Your task to perform on an android device: Open the web browser Image 0: 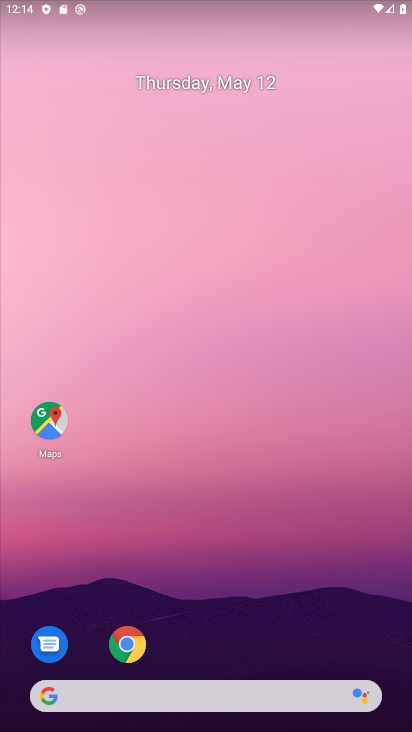
Step 0: click (134, 634)
Your task to perform on an android device: Open the web browser Image 1: 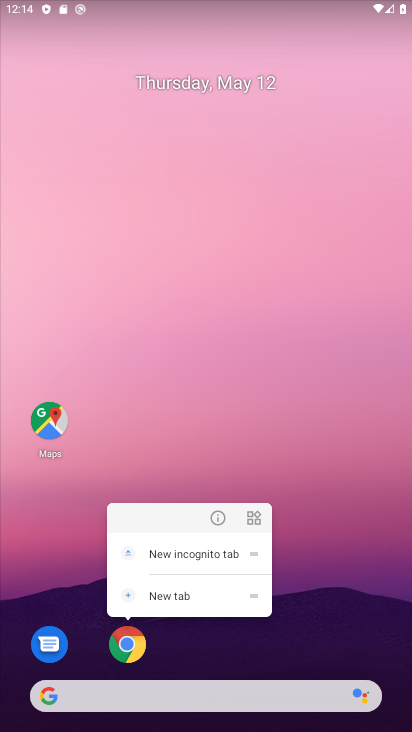
Step 1: click (125, 647)
Your task to perform on an android device: Open the web browser Image 2: 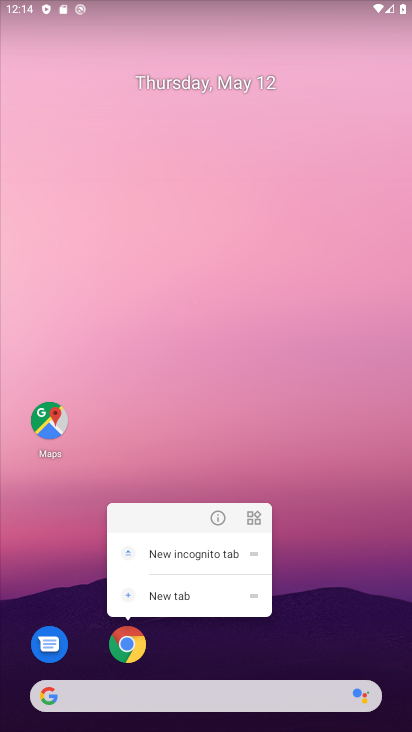
Step 2: click (142, 648)
Your task to perform on an android device: Open the web browser Image 3: 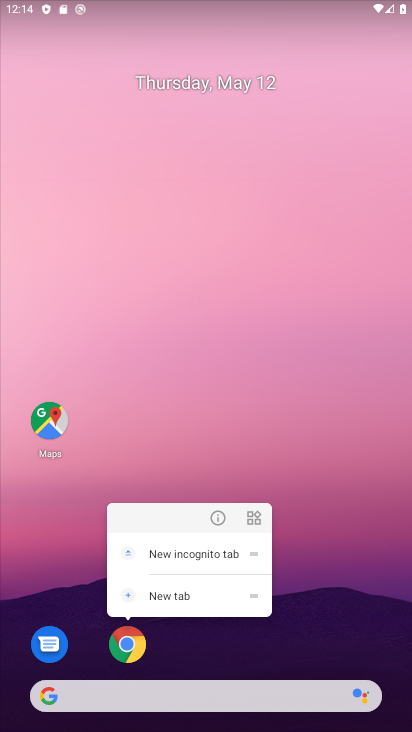
Step 3: click (138, 652)
Your task to perform on an android device: Open the web browser Image 4: 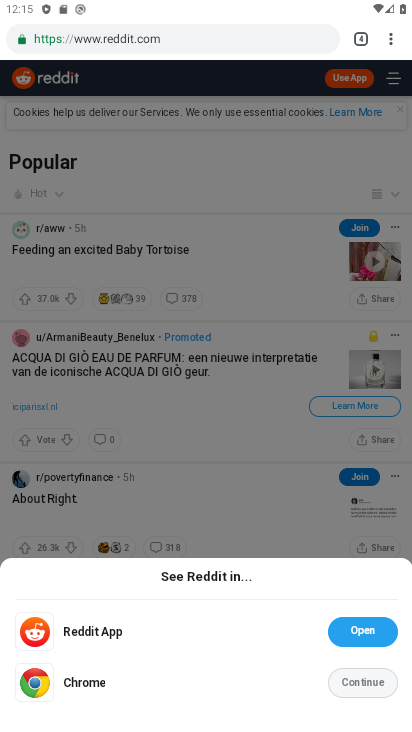
Step 4: task complete